Your task to perform on an android device: Go to wifi settings Image 0: 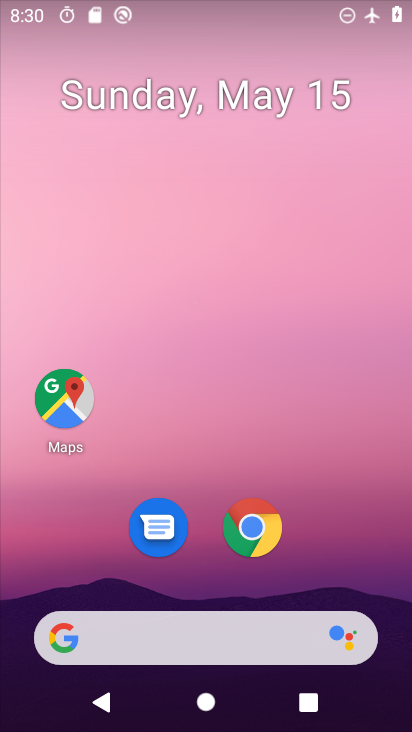
Step 0: drag from (220, 575) to (222, 34)
Your task to perform on an android device: Go to wifi settings Image 1: 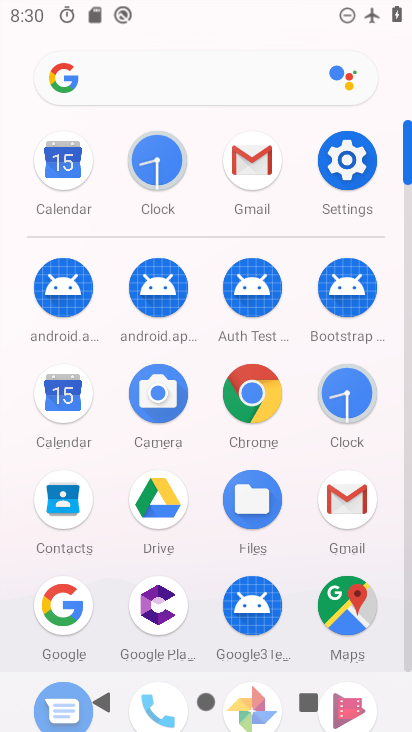
Step 1: click (326, 169)
Your task to perform on an android device: Go to wifi settings Image 2: 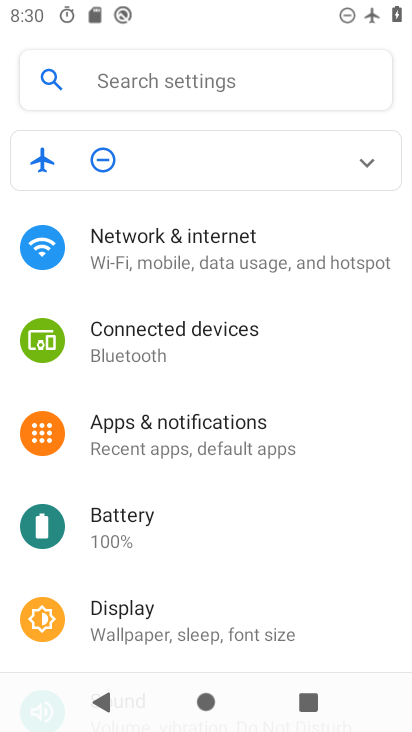
Step 2: click (140, 253)
Your task to perform on an android device: Go to wifi settings Image 3: 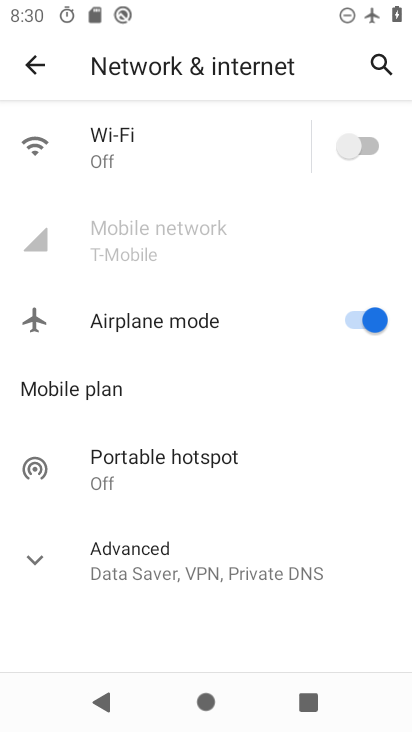
Step 3: click (140, 153)
Your task to perform on an android device: Go to wifi settings Image 4: 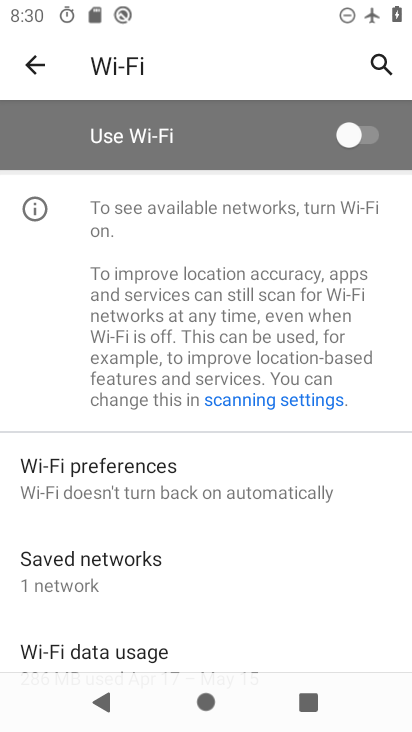
Step 4: task complete